Your task to perform on an android device: check the backup settings in the google photos Image 0: 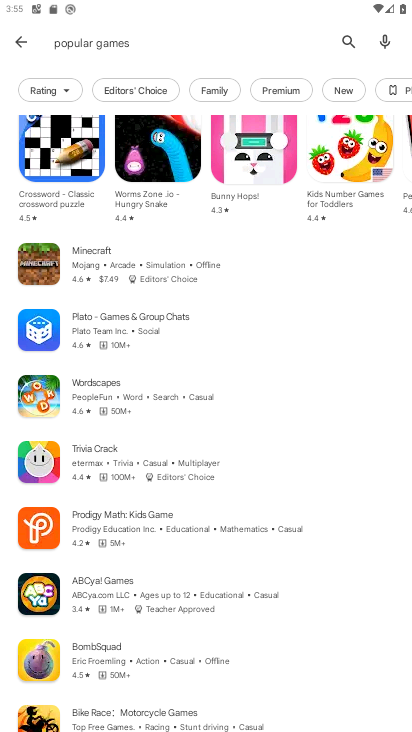
Step 0: press home button
Your task to perform on an android device: check the backup settings in the google photos Image 1: 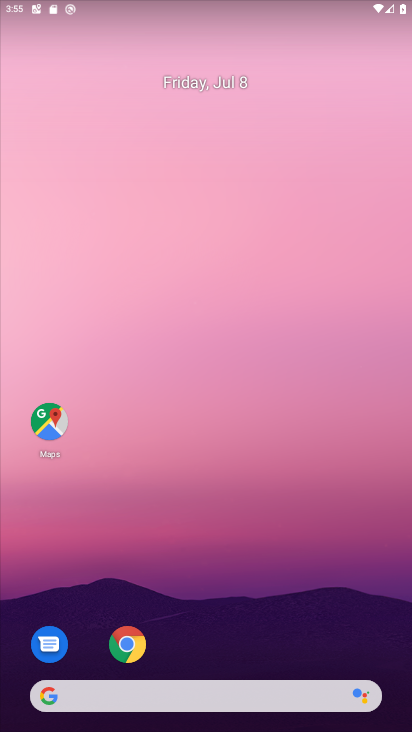
Step 1: drag from (383, 644) to (325, 130)
Your task to perform on an android device: check the backup settings in the google photos Image 2: 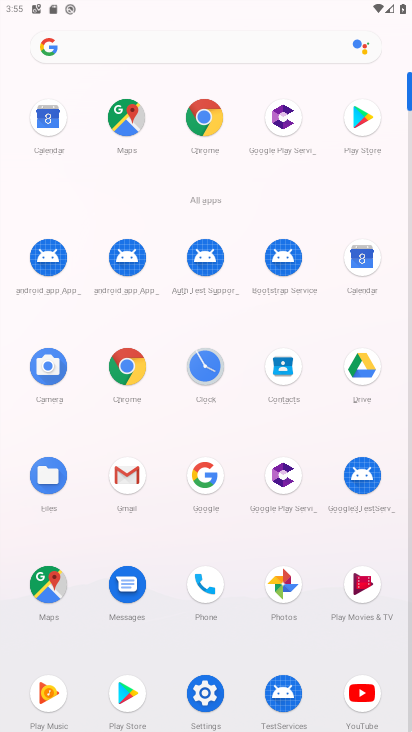
Step 2: click (281, 583)
Your task to perform on an android device: check the backup settings in the google photos Image 3: 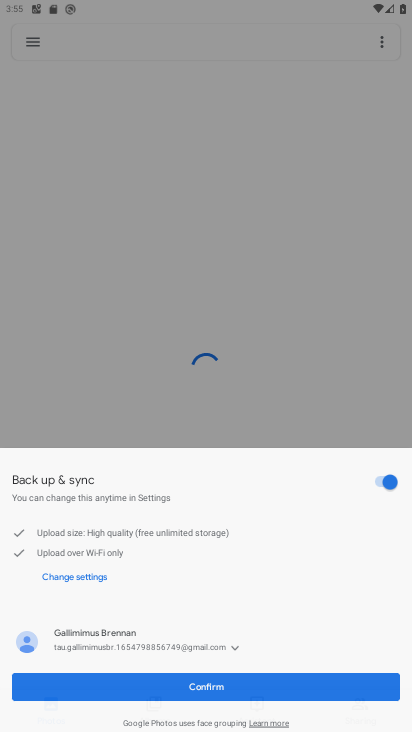
Step 3: click (30, 40)
Your task to perform on an android device: check the backup settings in the google photos Image 4: 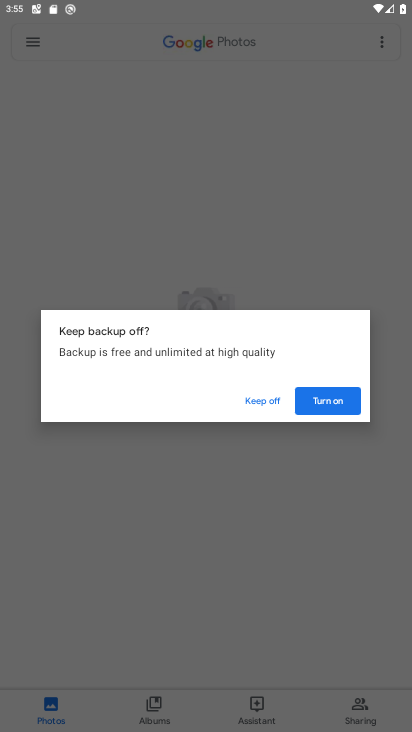
Step 4: click (323, 409)
Your task to perform on an android device: check the backup settings in the google photos Image 5: 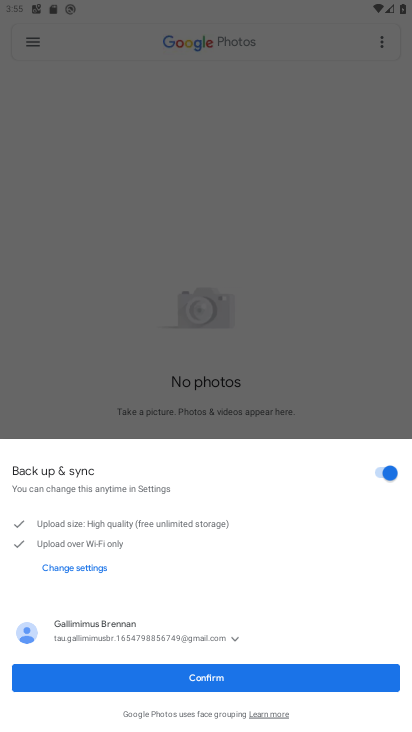
Step 5: click (196, 674)
Your task to perform on an android device: check the backup settings in the google photos Image 6: 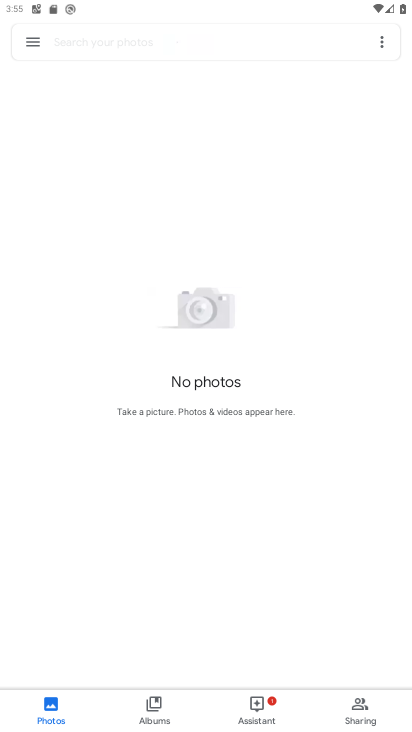
Step 6: click (31, 43)
Your task to perform on an android device: check the backup settings in the google photos Image 7: 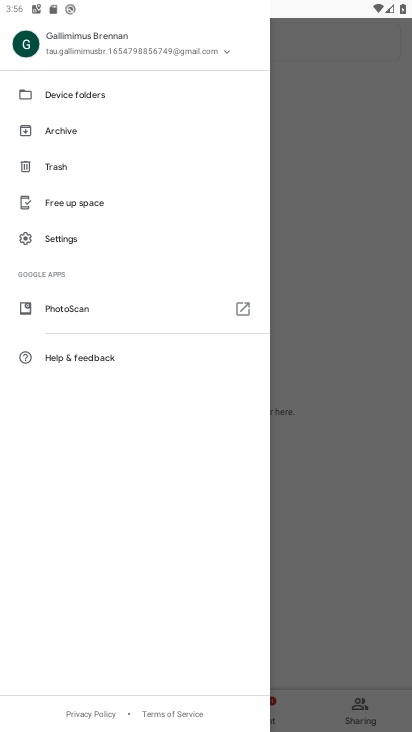
Step 7: click (57, 238)
Your task to perform on an android device: check the backup settings in the google photos Image 8: 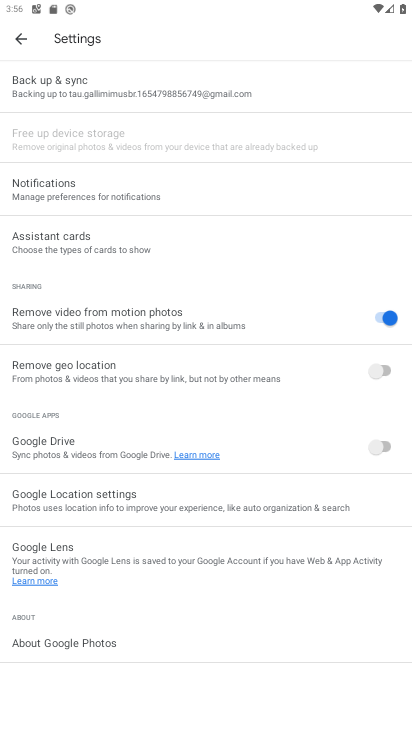
Step 8: click (55, 74)
Your task to perform on an android device: check the backup settings in the google photos Image 9: 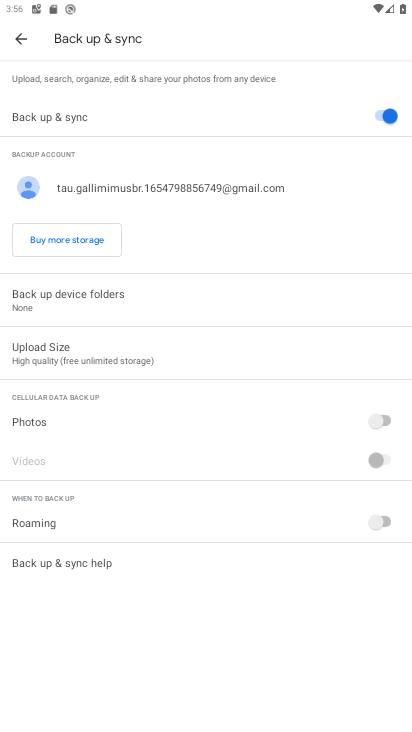
Step 9: task complete